Your task to perform on an android device: check google app version Image 0: 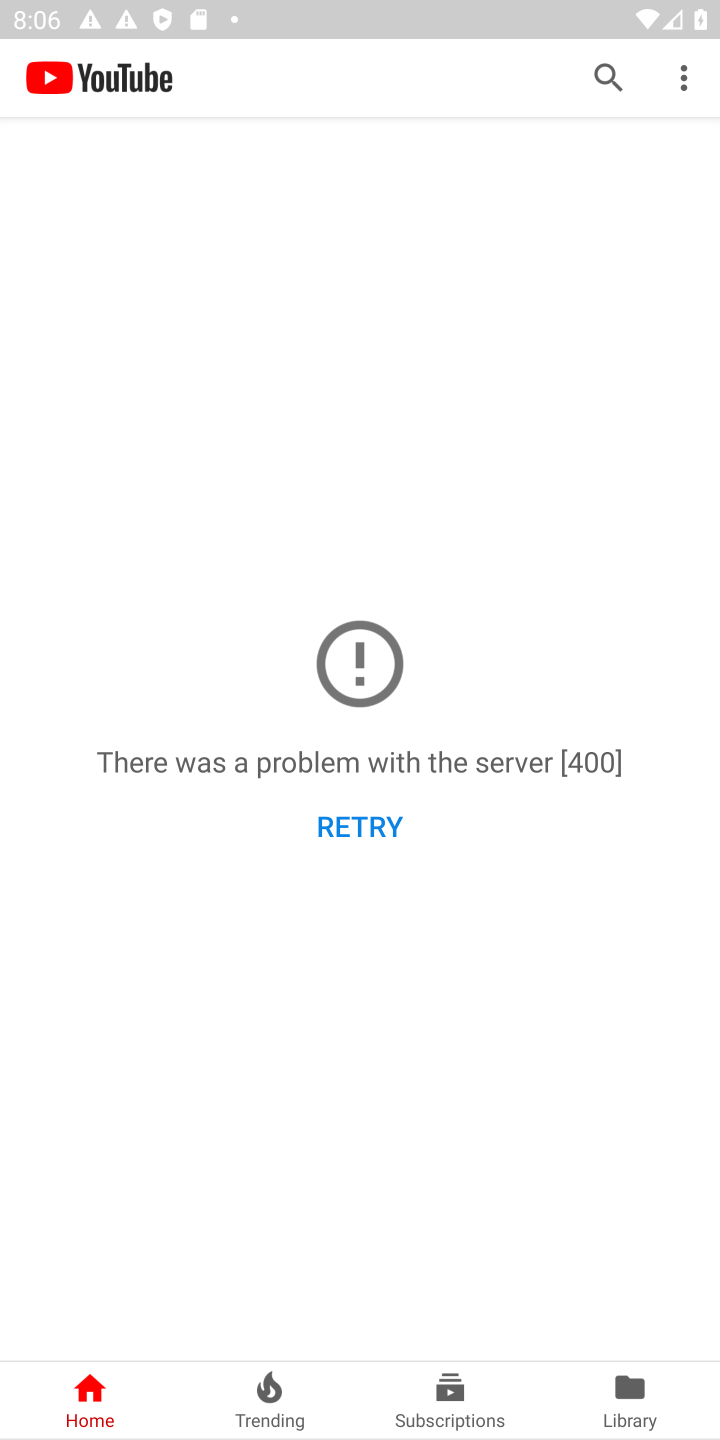
Step 0: press home button
Your task to perform on an android device: check google app version Image 1: 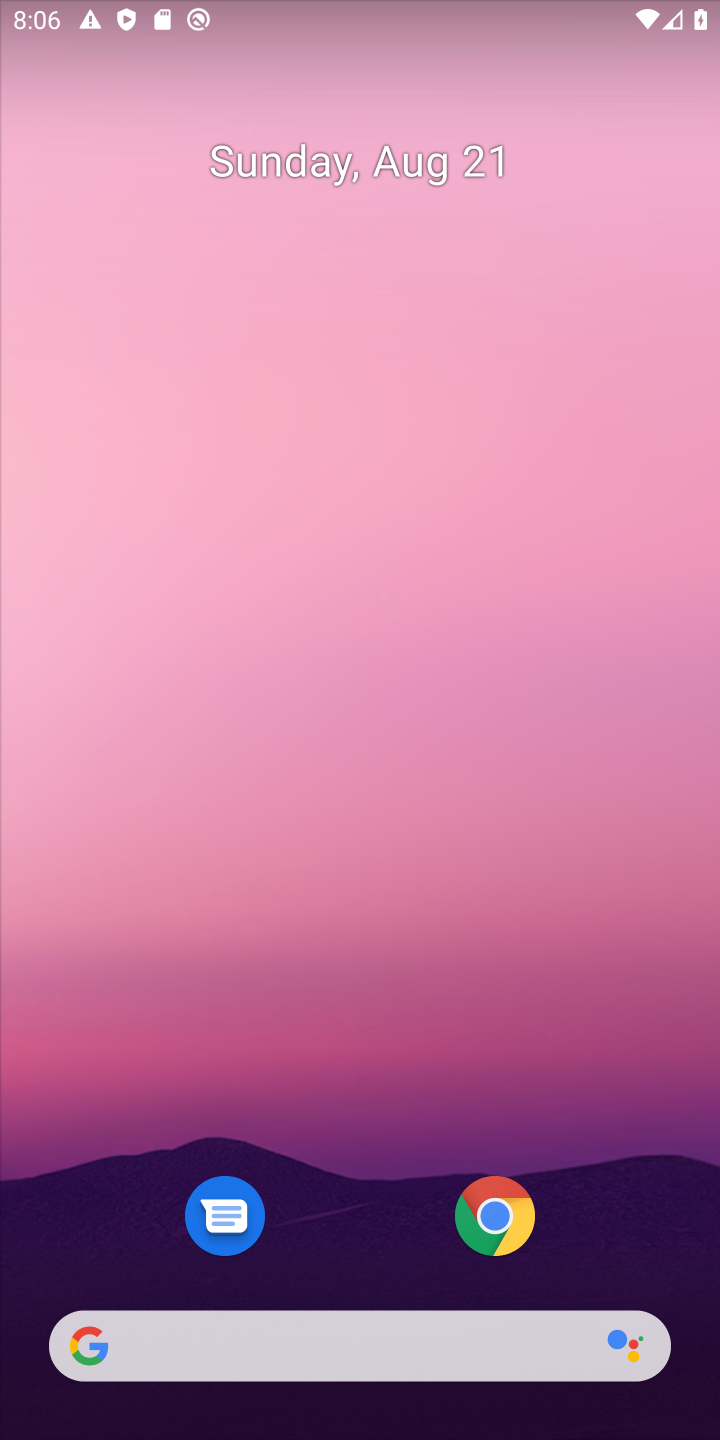
Step 1: drag from (438, 1189) to (705, 184)
Your task to perform on an android device: check google app version Image 2: 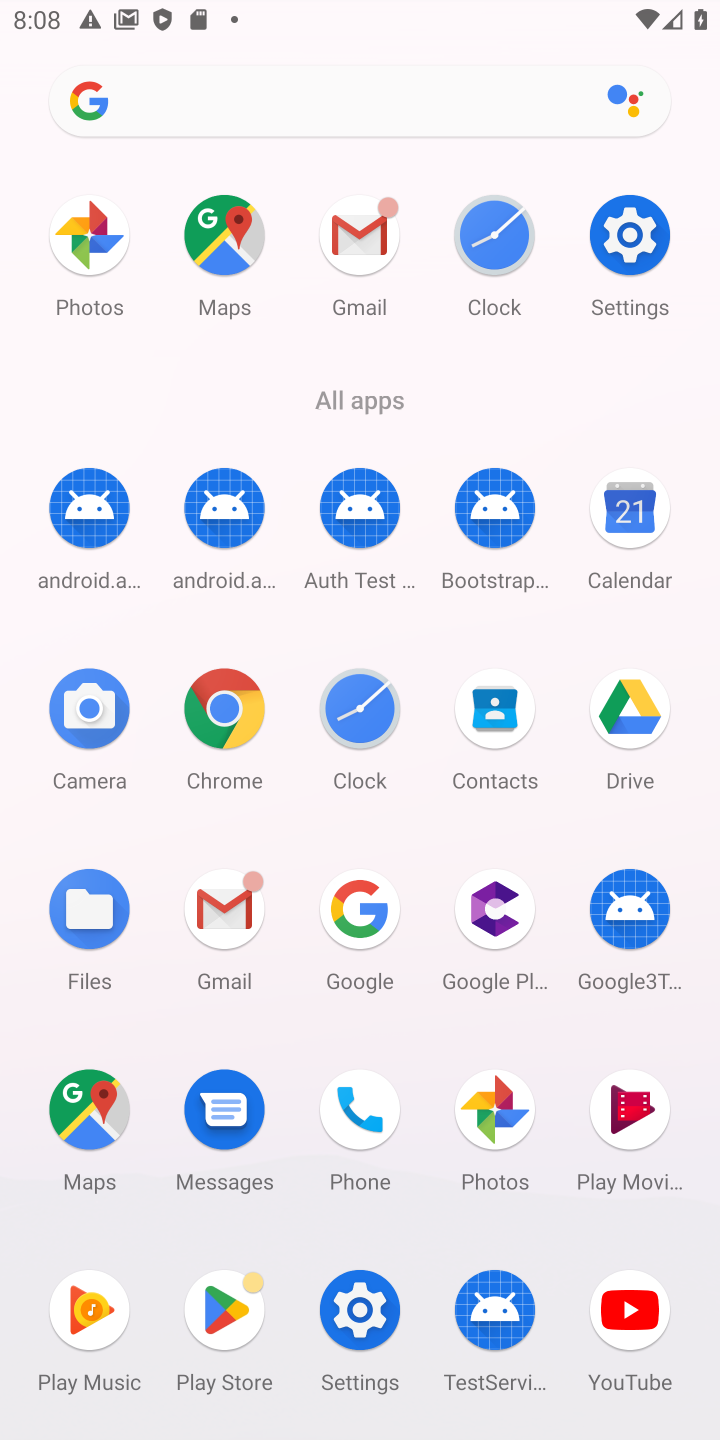
Step 2: click (359, 917)
Your task to perform on an android device: check google app version Image 3: 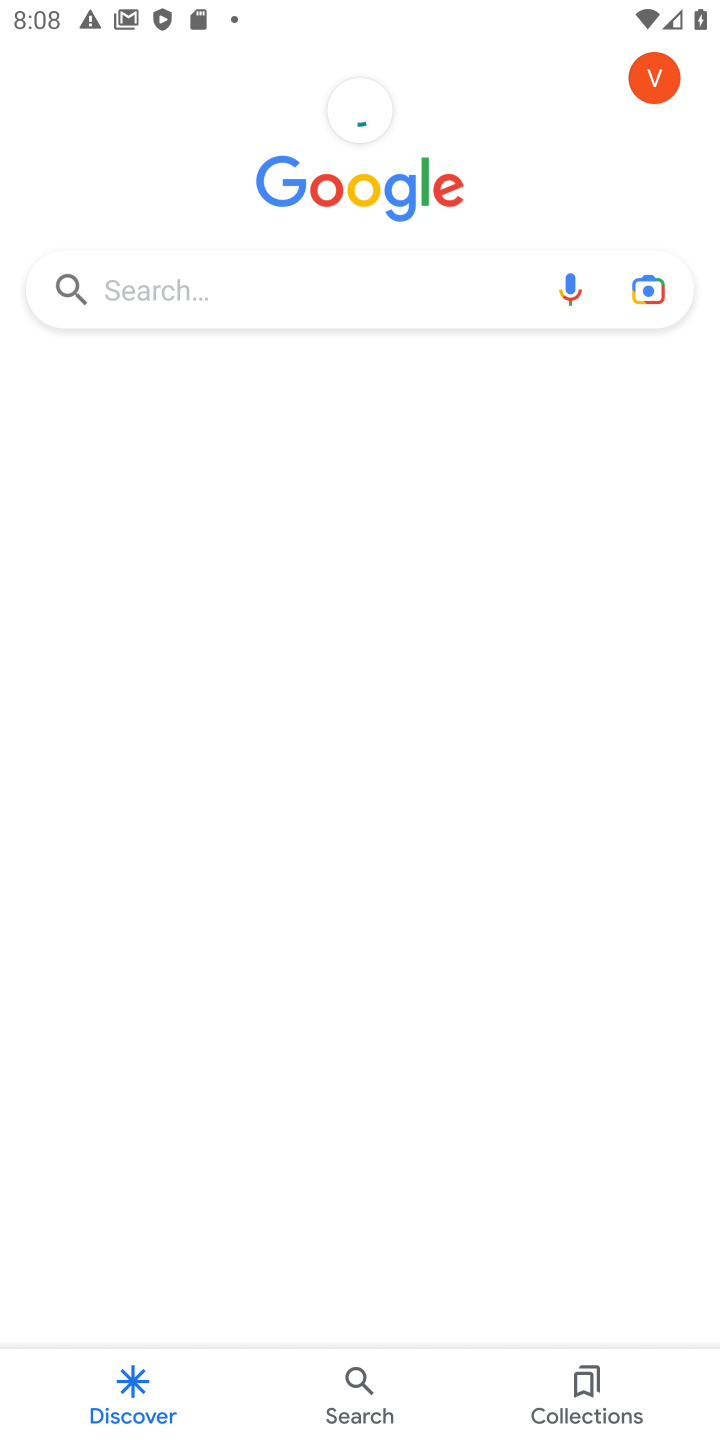
Step 3: press home button
Your task to perform on an android device: check google app version Image 4: 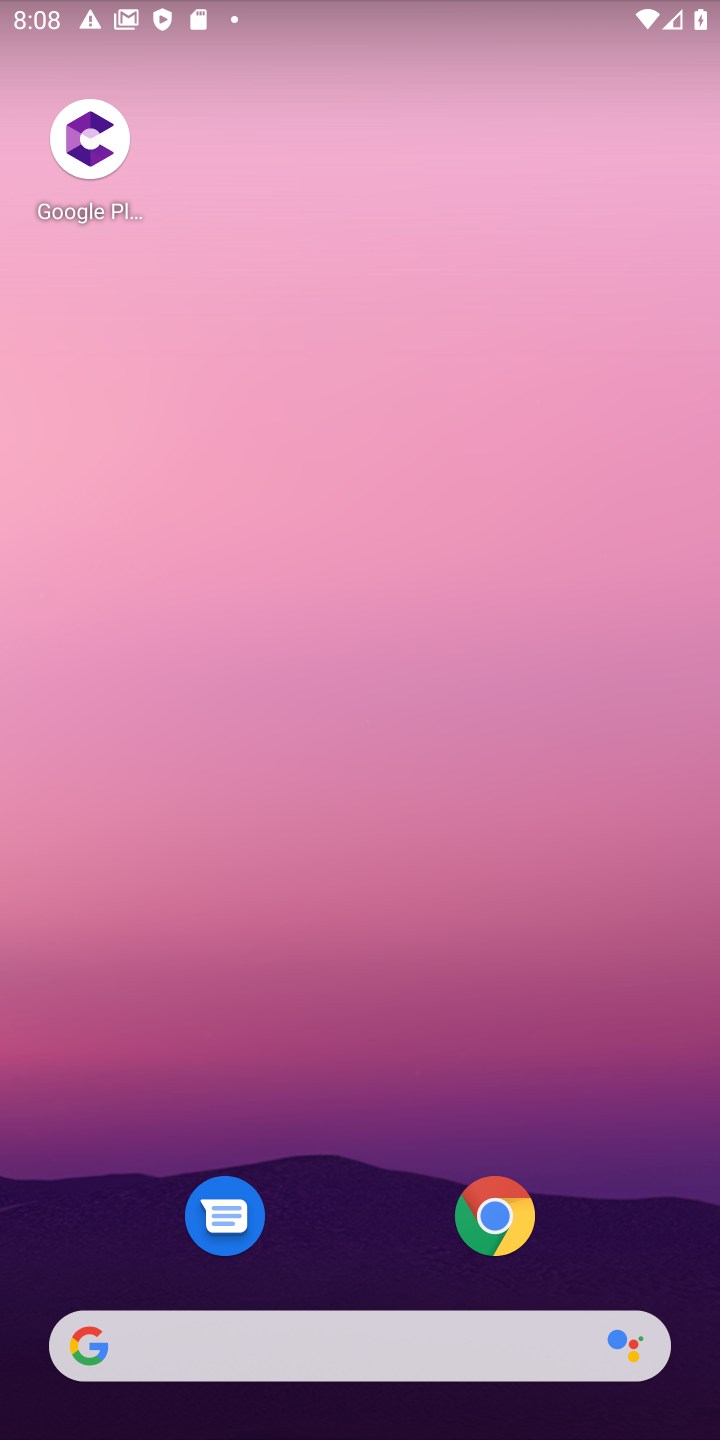
Step 4: drag from (299, 1148) to (511, 19)
Your task to perform on an android device: check google app version Image 5: 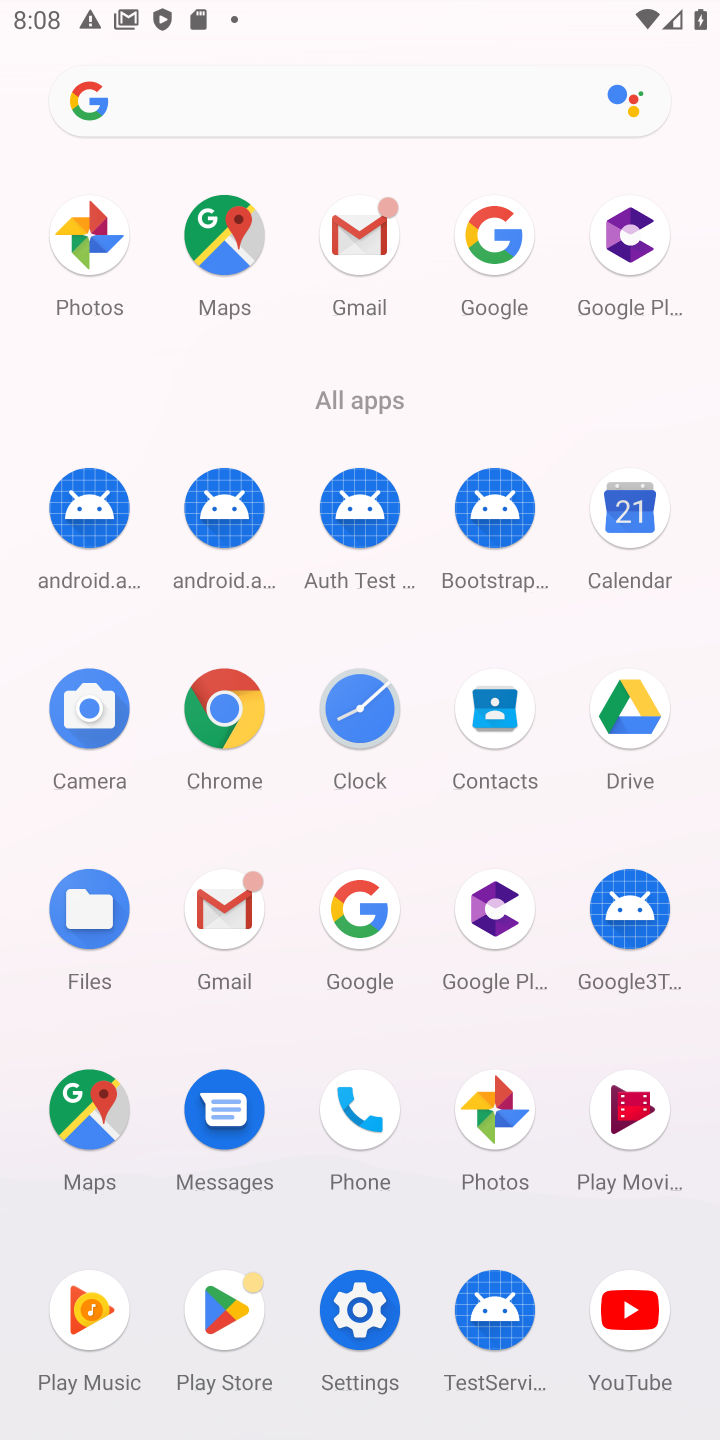
Step 5: click (368, 928)
Your task to perform on an android device: check google app version Image 6: 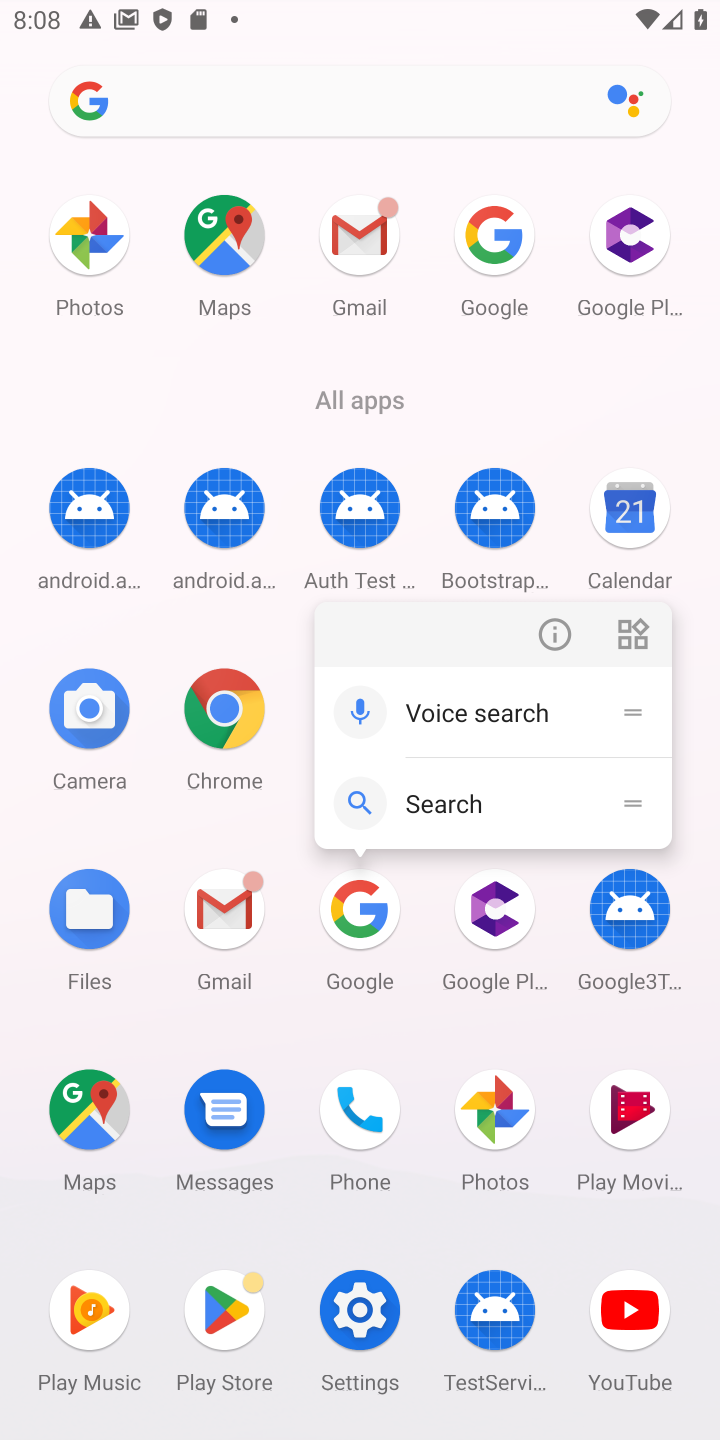
Step 6: click (536, 625)
Your task to perform on an android device: check google app version Image 7: 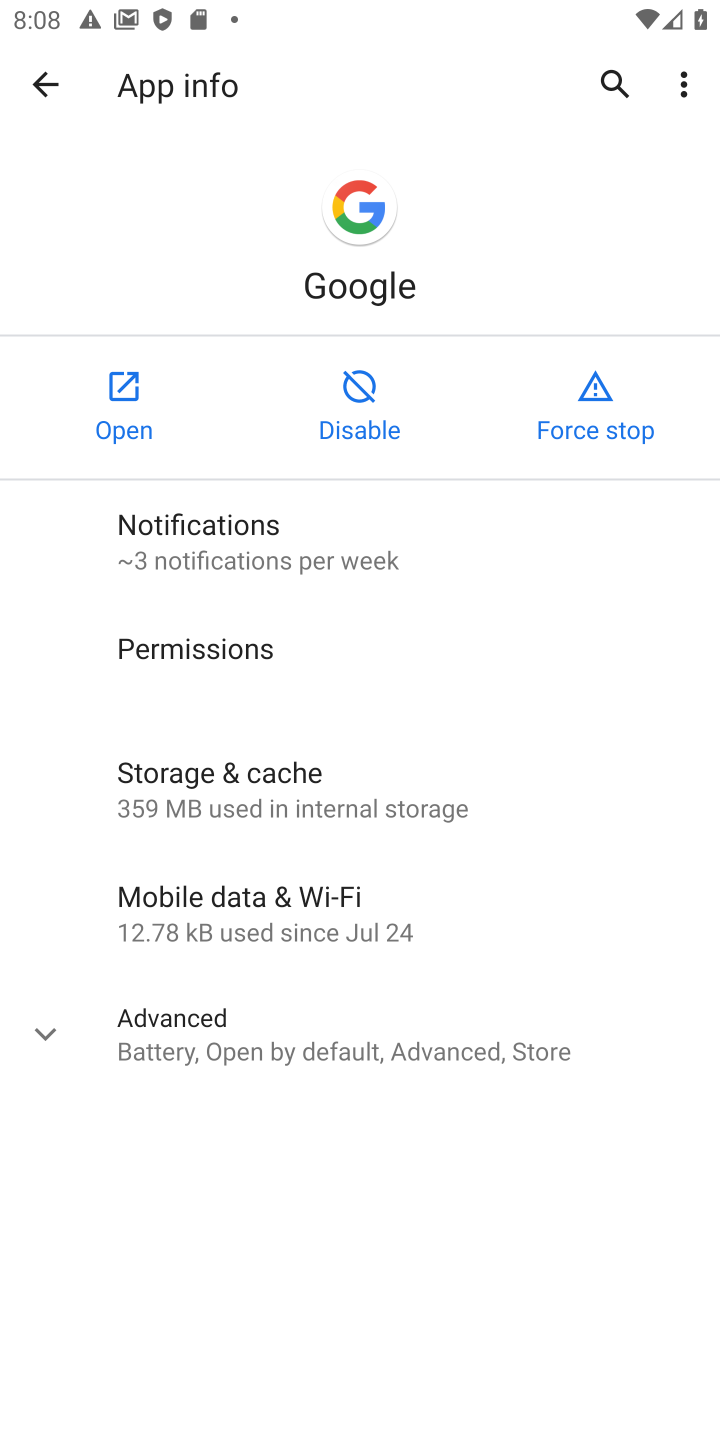
Step 7: drag from (420, 1275) to (537, 605)
Your task to perform on an android device: check google app version Image 8: 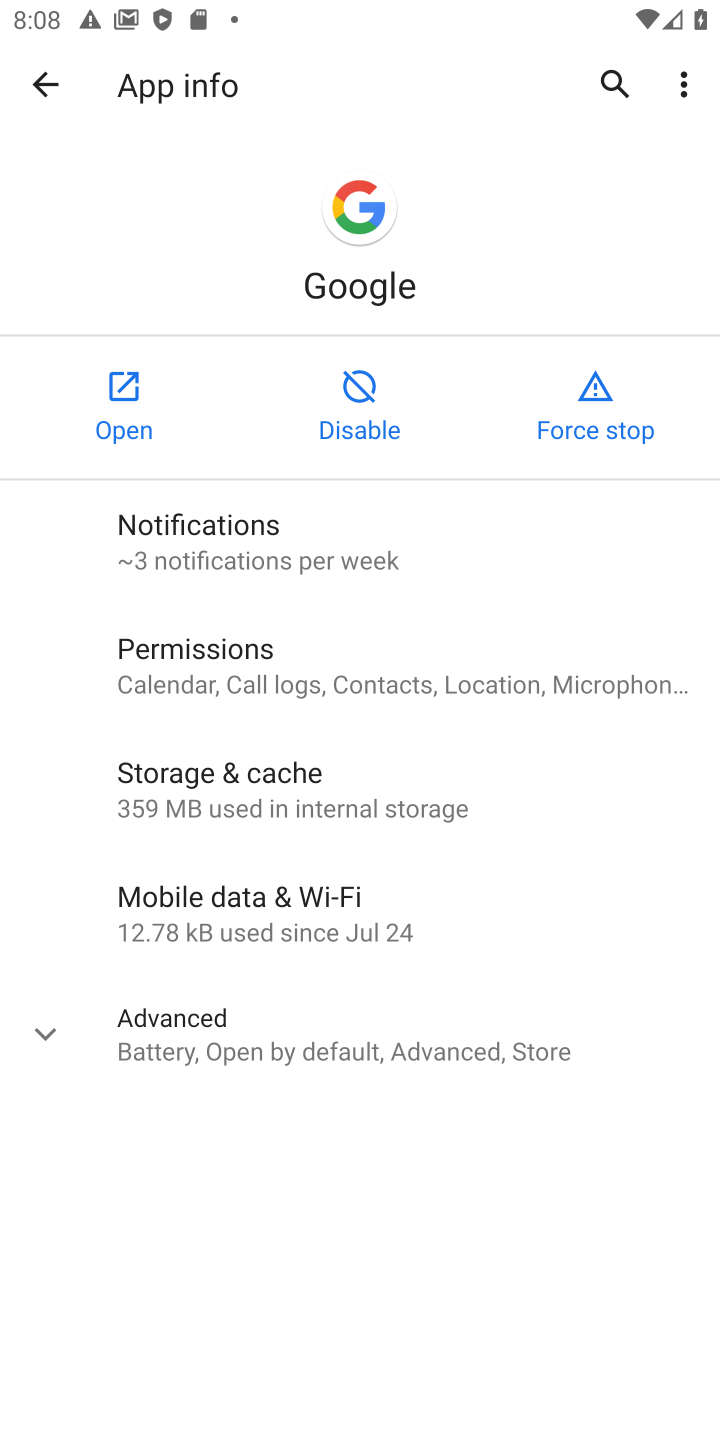
Step 8: click (283, 1036)
Your task to perform on an android device: check google app version Image 9: 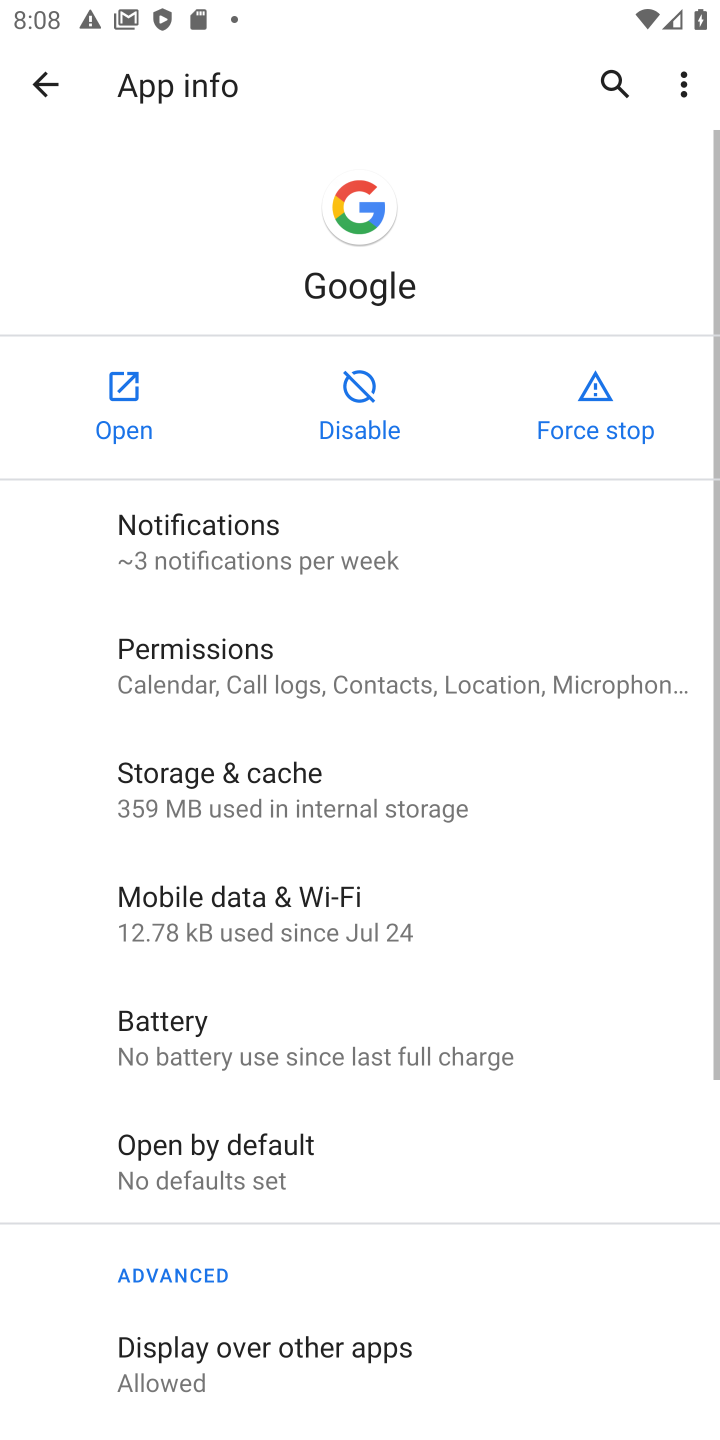
Step 9: task complete